Your task to perform on an android device: Clear the cart on costco. Search for razer blade on costco, select the first entry, add it to the cart, then select checkout. Image 0: 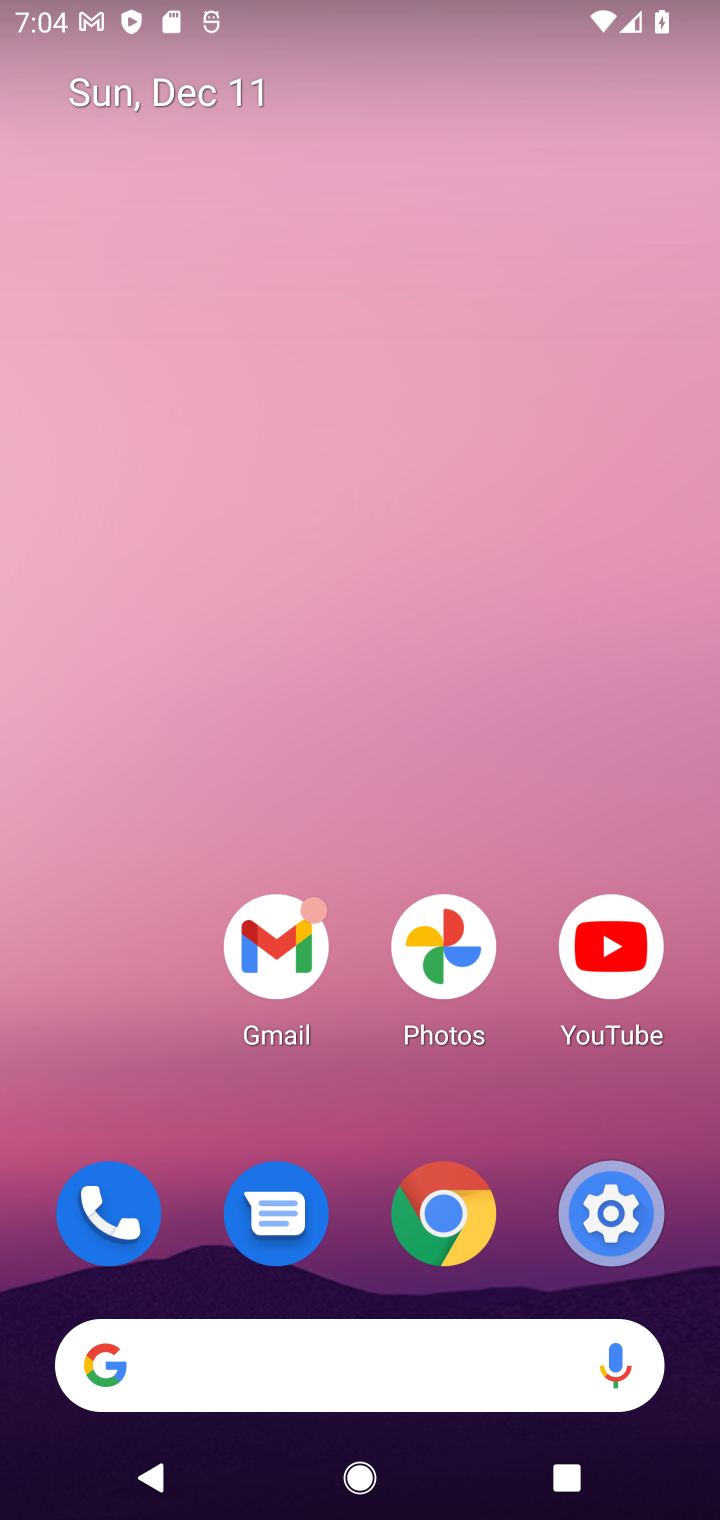
Step 0: click (275, 1355)
Your task to perform on an android device: Clear the cart on costco. Search for razer blade on costco, select the first entry, add it to the cart, then select checkout. Image 1: 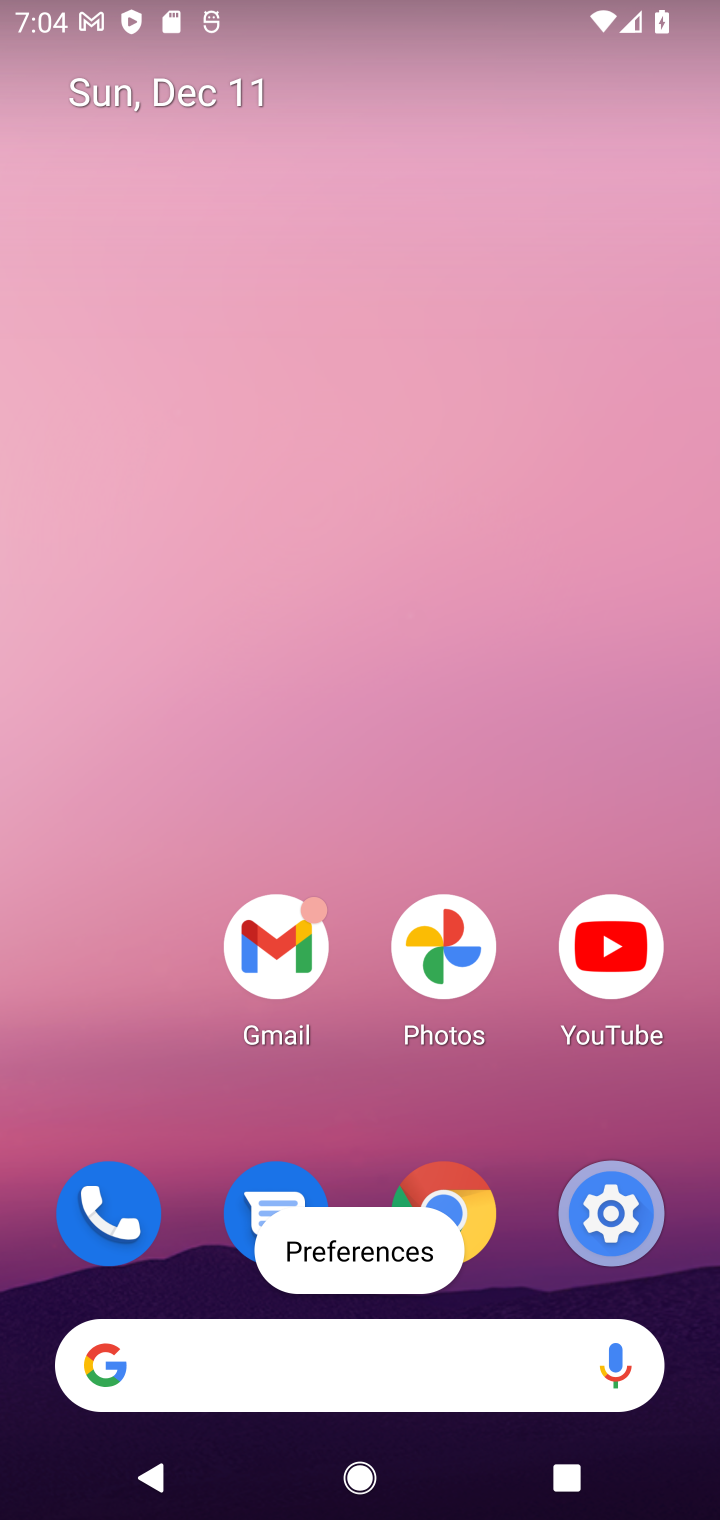
Step 1: click (470, 1378)
Your task to perform on an android device: Clear the cart on costco. Search for razer blade on costco, select the first entry, add it to the cart, then select checkout. Image 2: 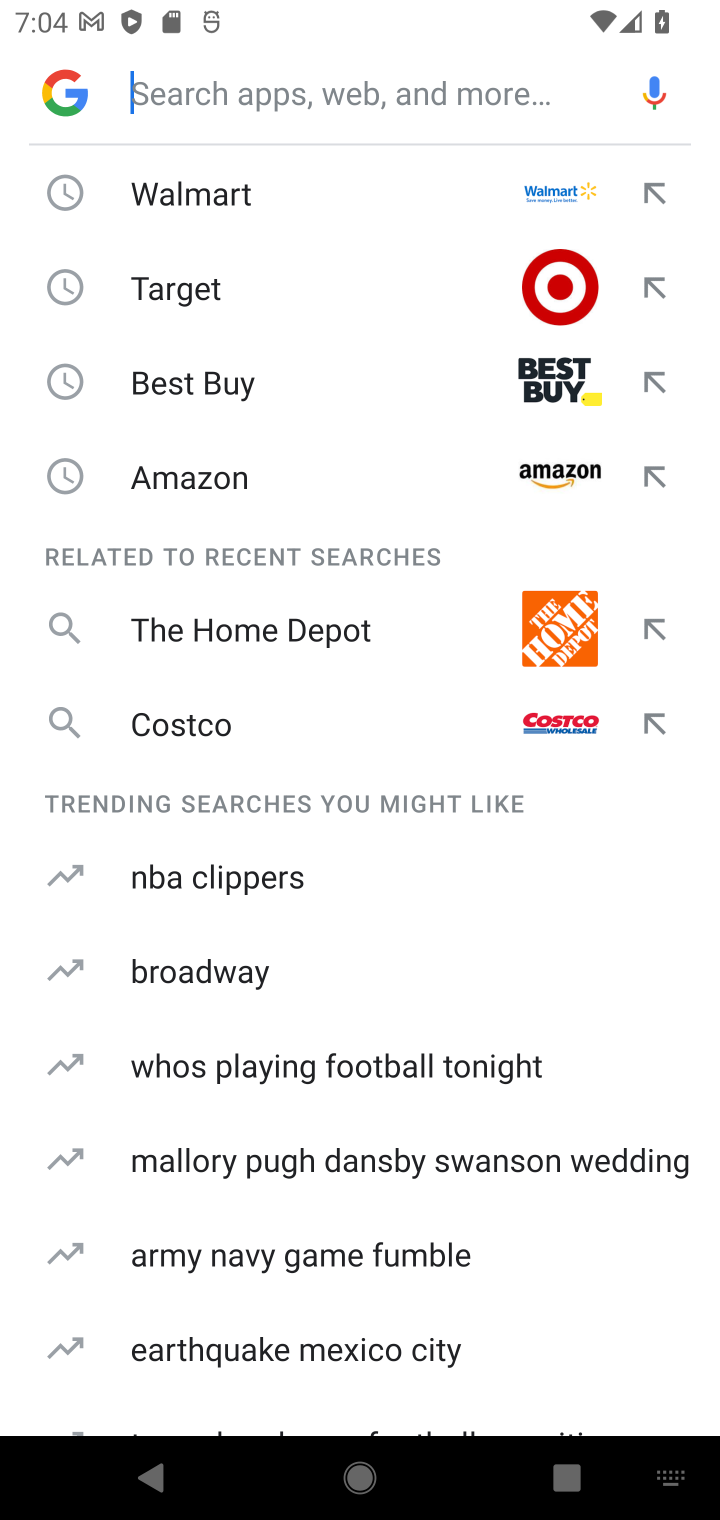
Step 2: click (133, 723)
Your task to perform on an android device: Clear the cart on costco. Search for razer blade on costco, select the first entry, add it to the cart, then select checkout. Image 3: 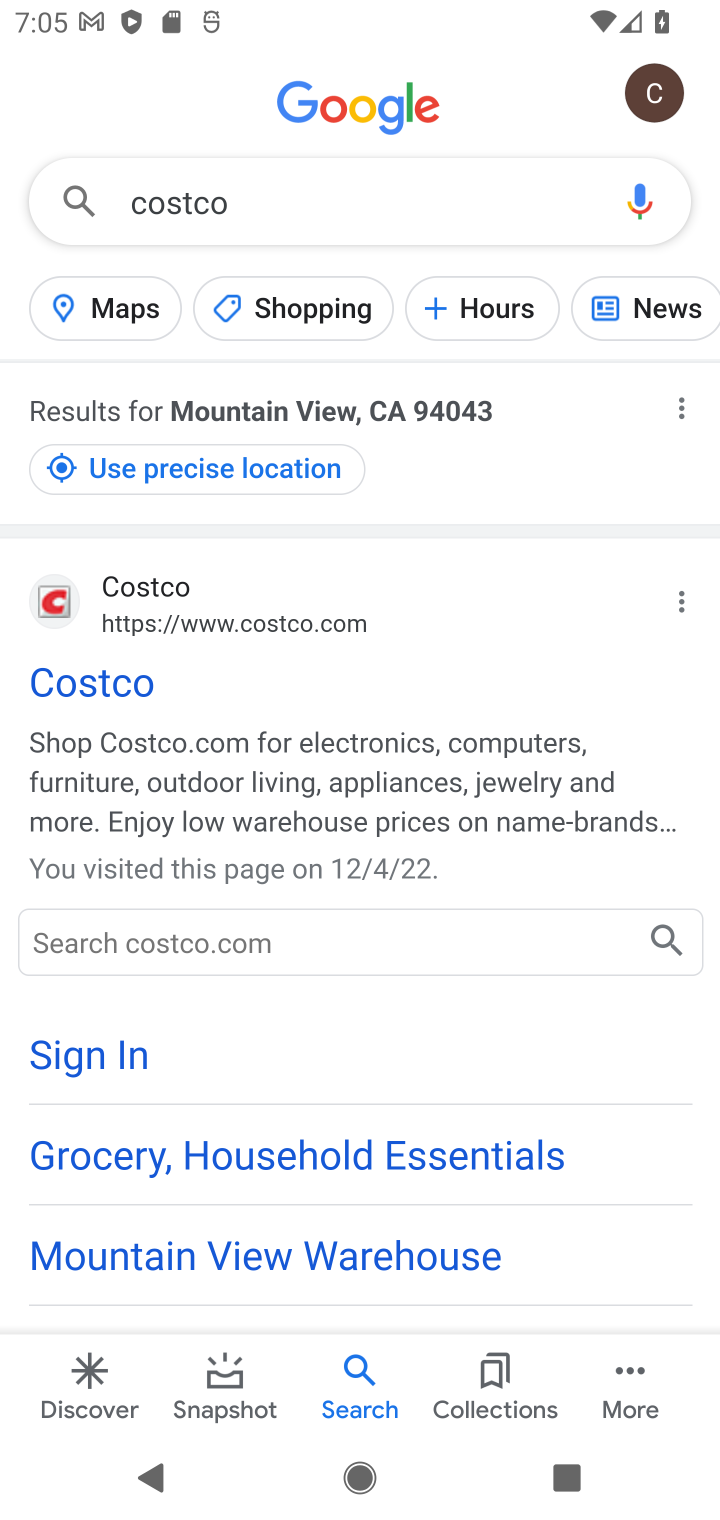
Step 3: click (111, 649)
Your task to perform on an android device: Clear the cart on costco. Search for razer blade on costco, select the first entry, add it to the cart, then select checkout. Image 4: 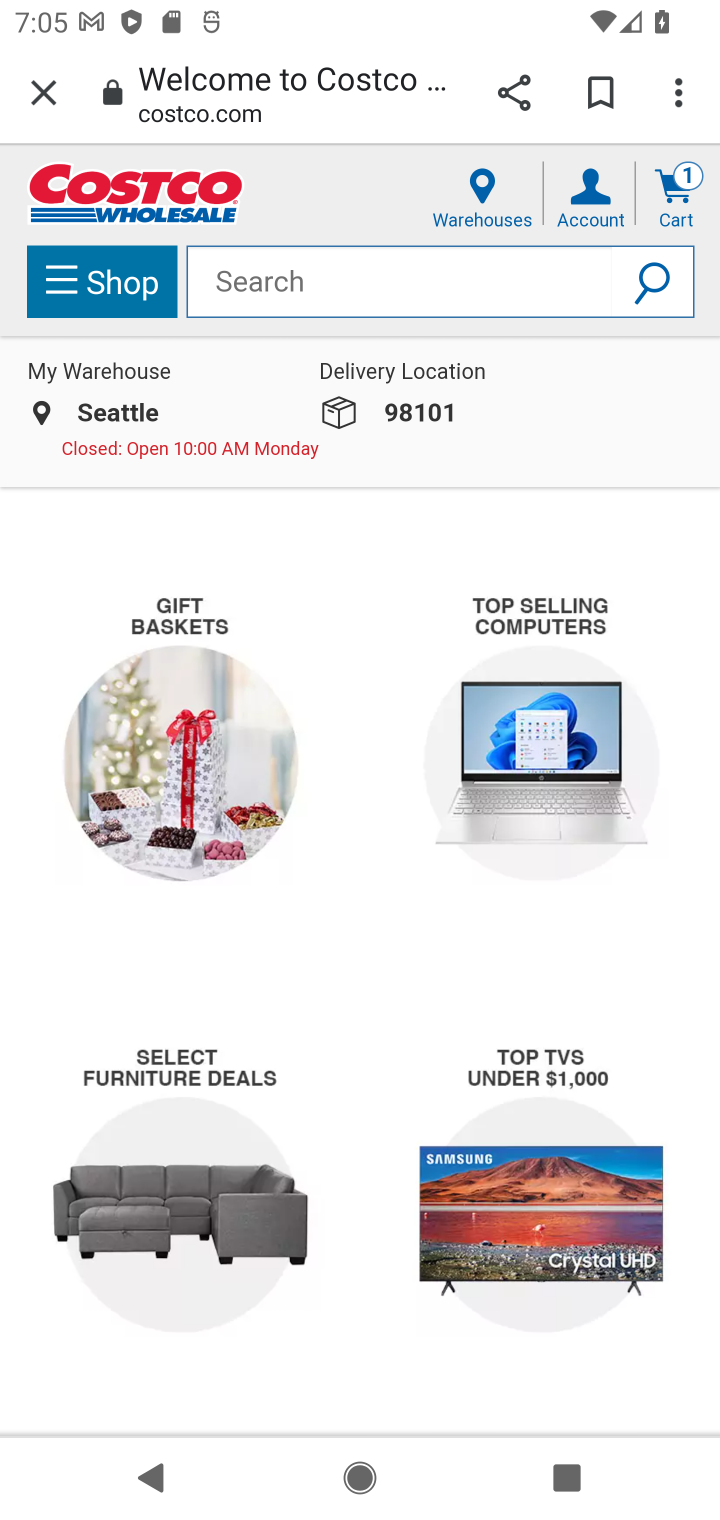
Step 4: click (349, 278)
Your task to perform on an android device: Clear the cart on costco. Search for razer blade on costco, select the first entry, add it to the cart, then select checkout. Image 5: 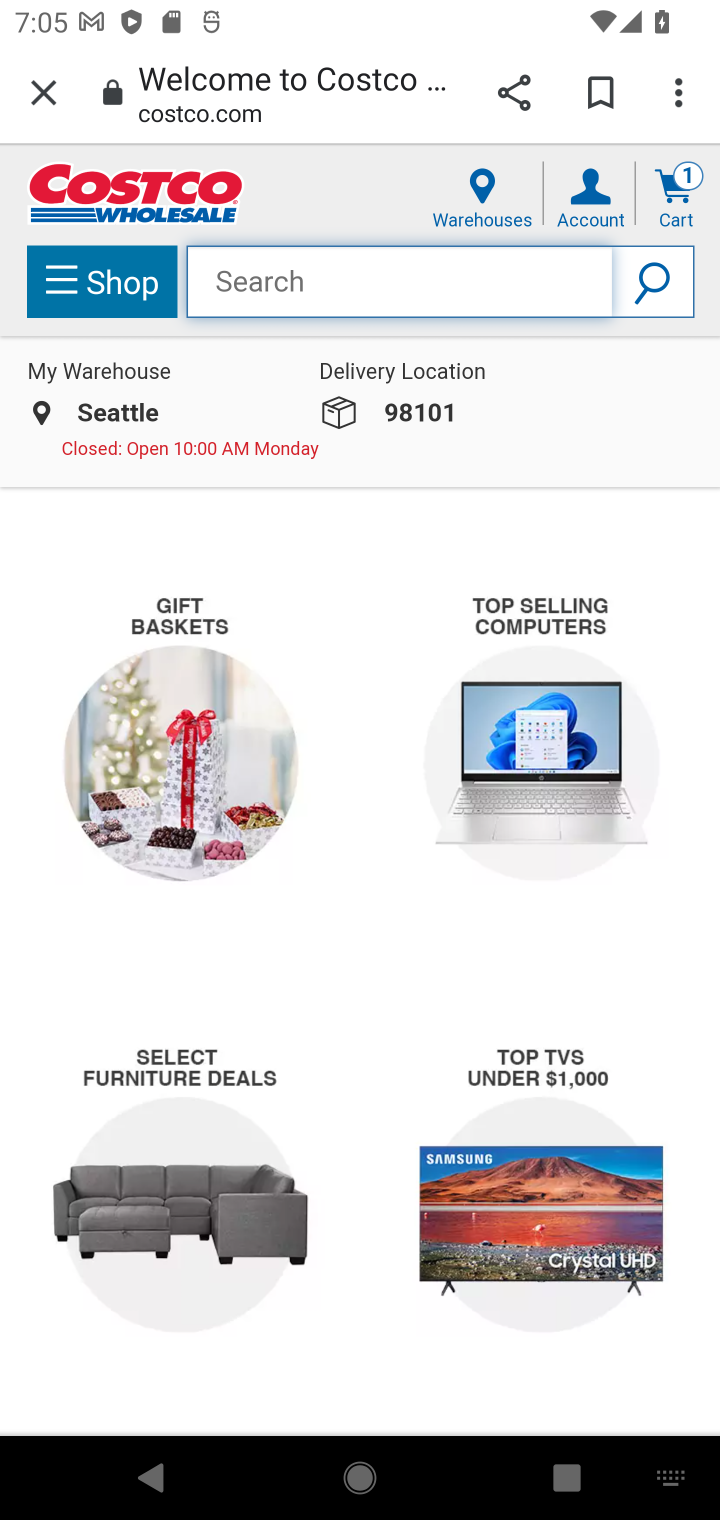
Step 5: type "razer blade"
Your task to perform on an android device: Clear the cart on costco. Search for razer blade on costco, select the first entry, add it to the cart, then select checkout. Image 6: 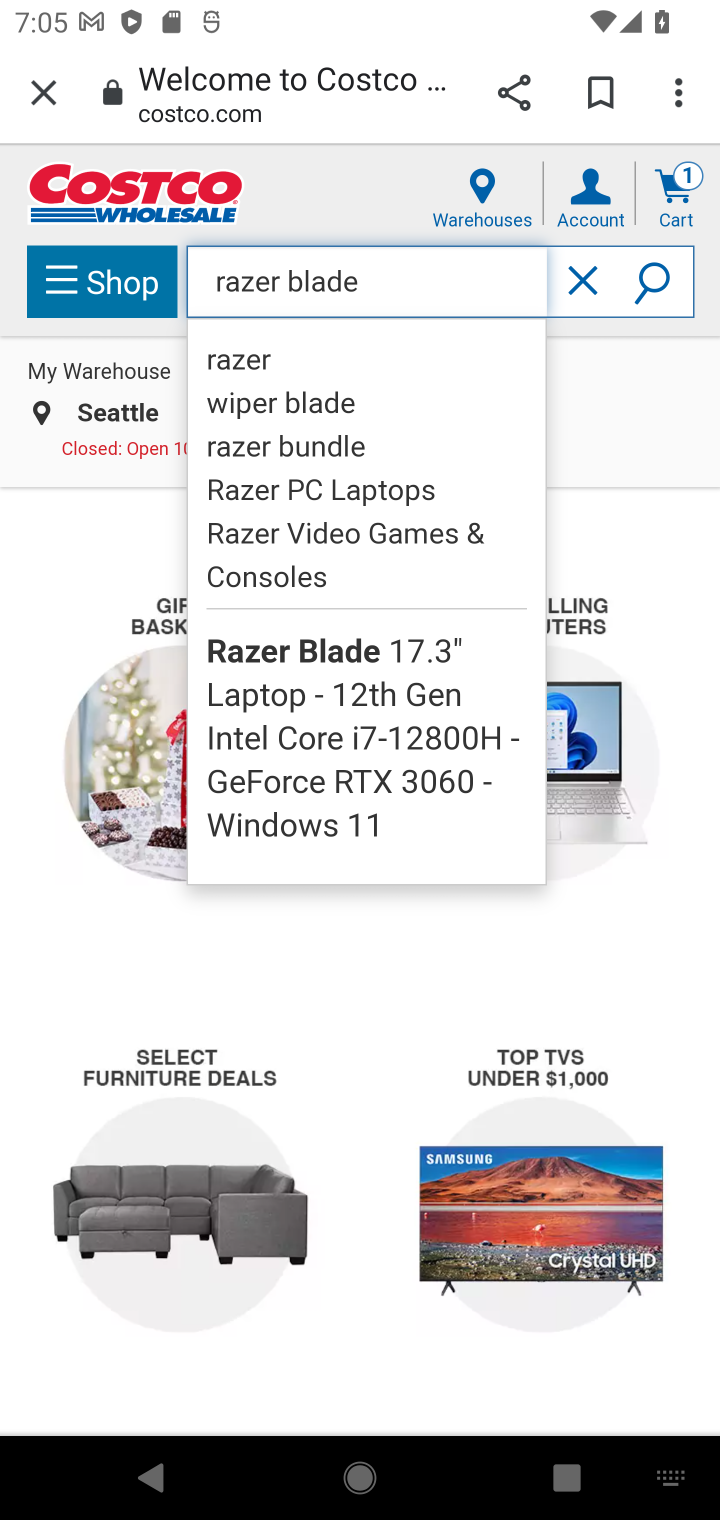
Step 6: click (652, 269)
Your task to perform on an android device: Clear the cart on costco. Search for razer blade on costco, select the first entry, add it to the cart, then select checkout. Image 7: 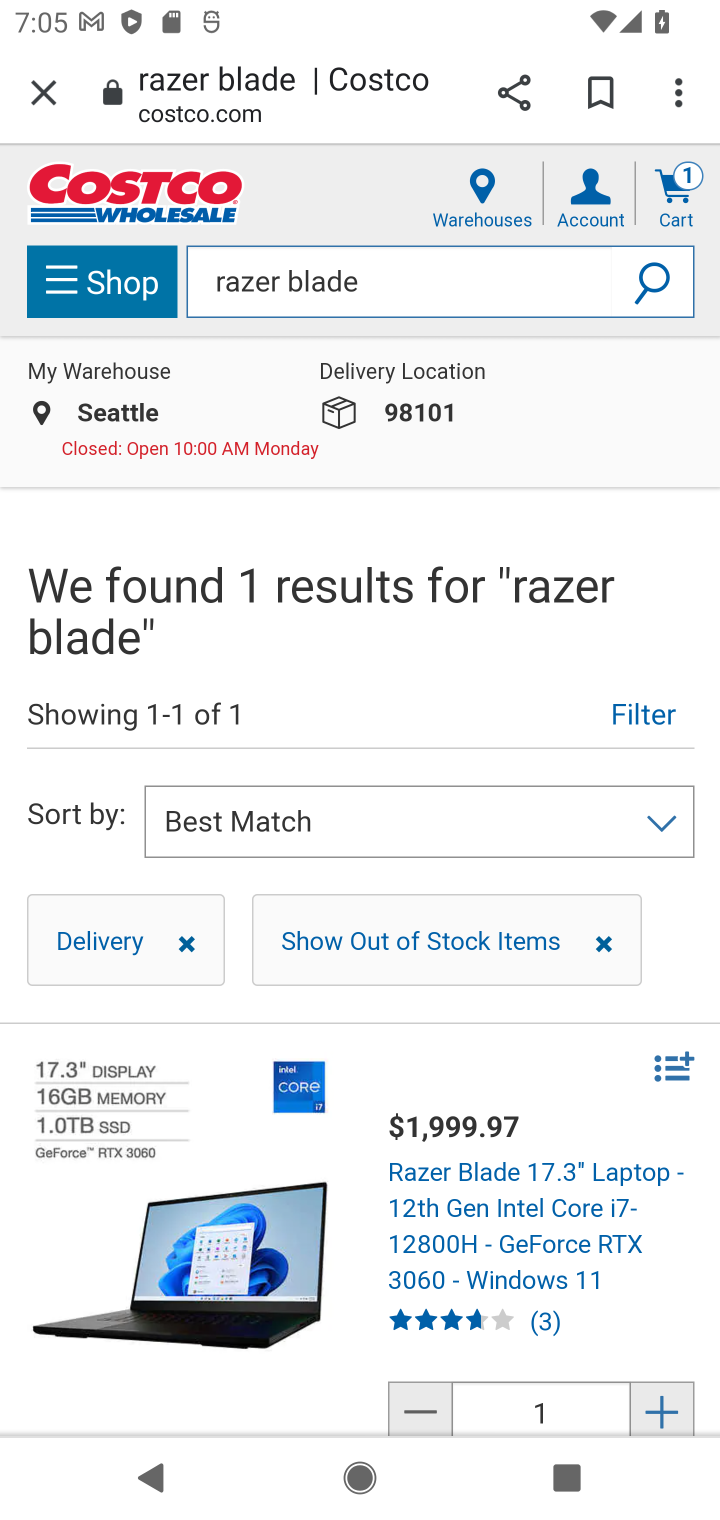
Step 7: drag from (605, 1321) to (582, 1069)
Your task to perform on an android device: Clear the cart on costco. Search for razer blade on costco, select the first entry, add it to the cart, then select checkout. Image 8: 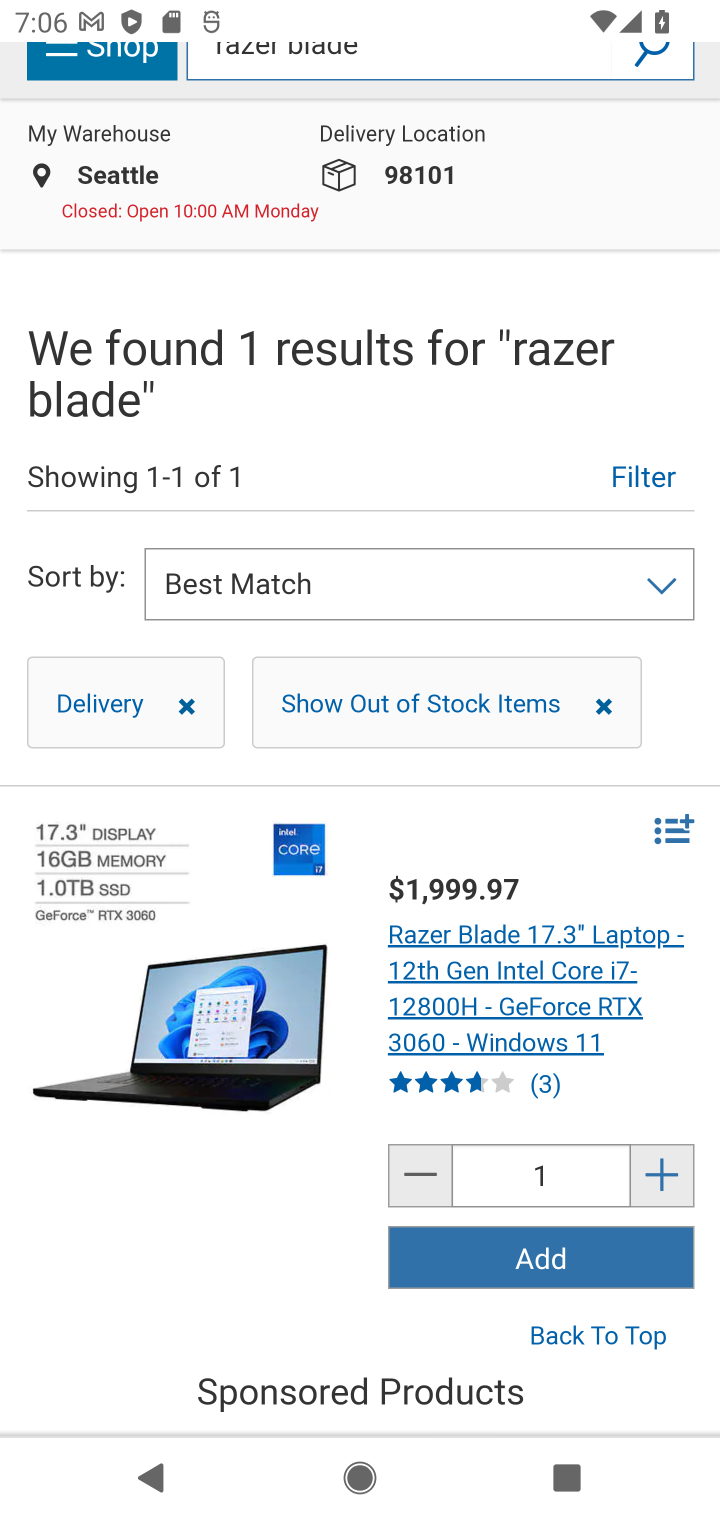
Step 8: click (596, 1232)
Your task to perform on an android device: Clear the cart on costco. Search for razer blade on costco, select the first entry, add it to the cart, then select checkout. Image 9: 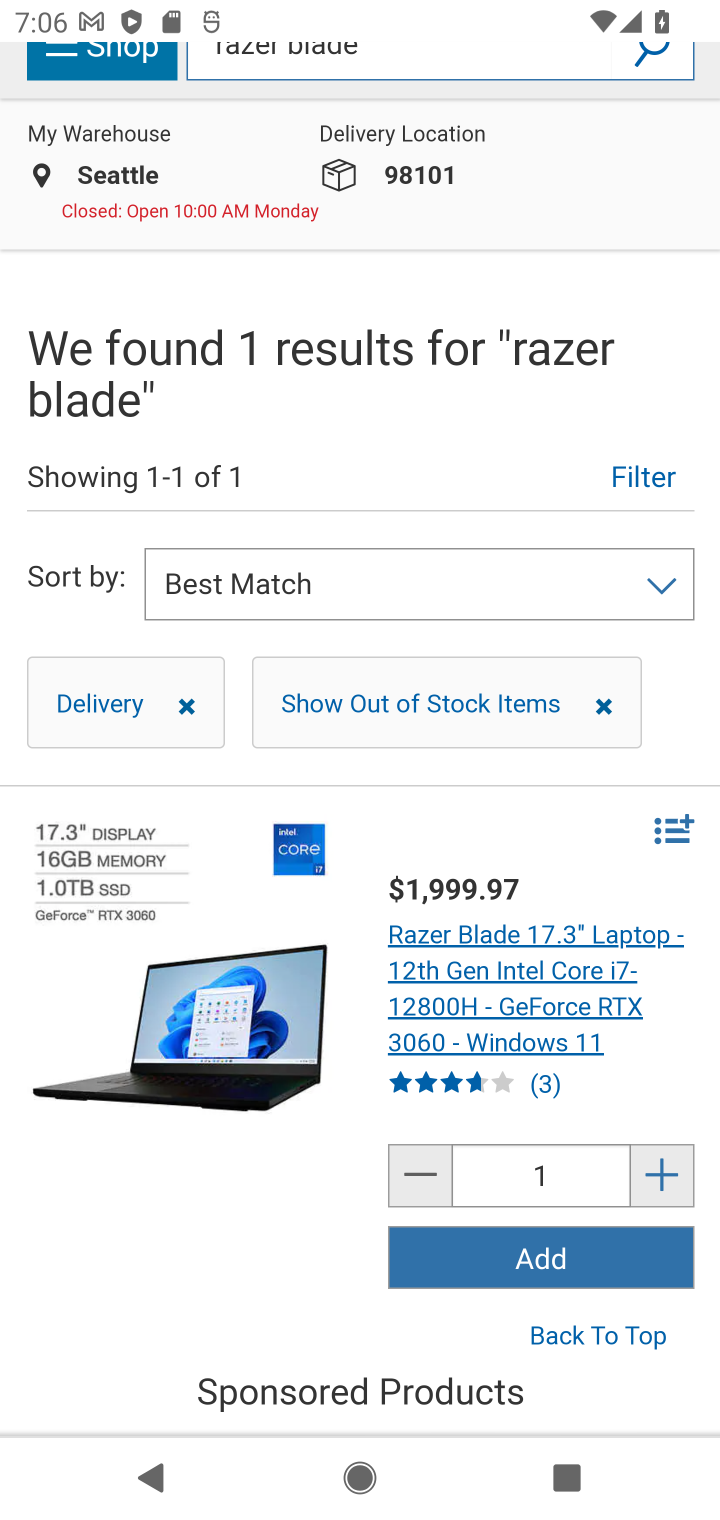
Step 9: click (507, 1286)
Your task to perform on an android device: Clear the cart on costco. Search for razer blade on costco, select the first entry, add it to the cart, then select checkout. Image 10: 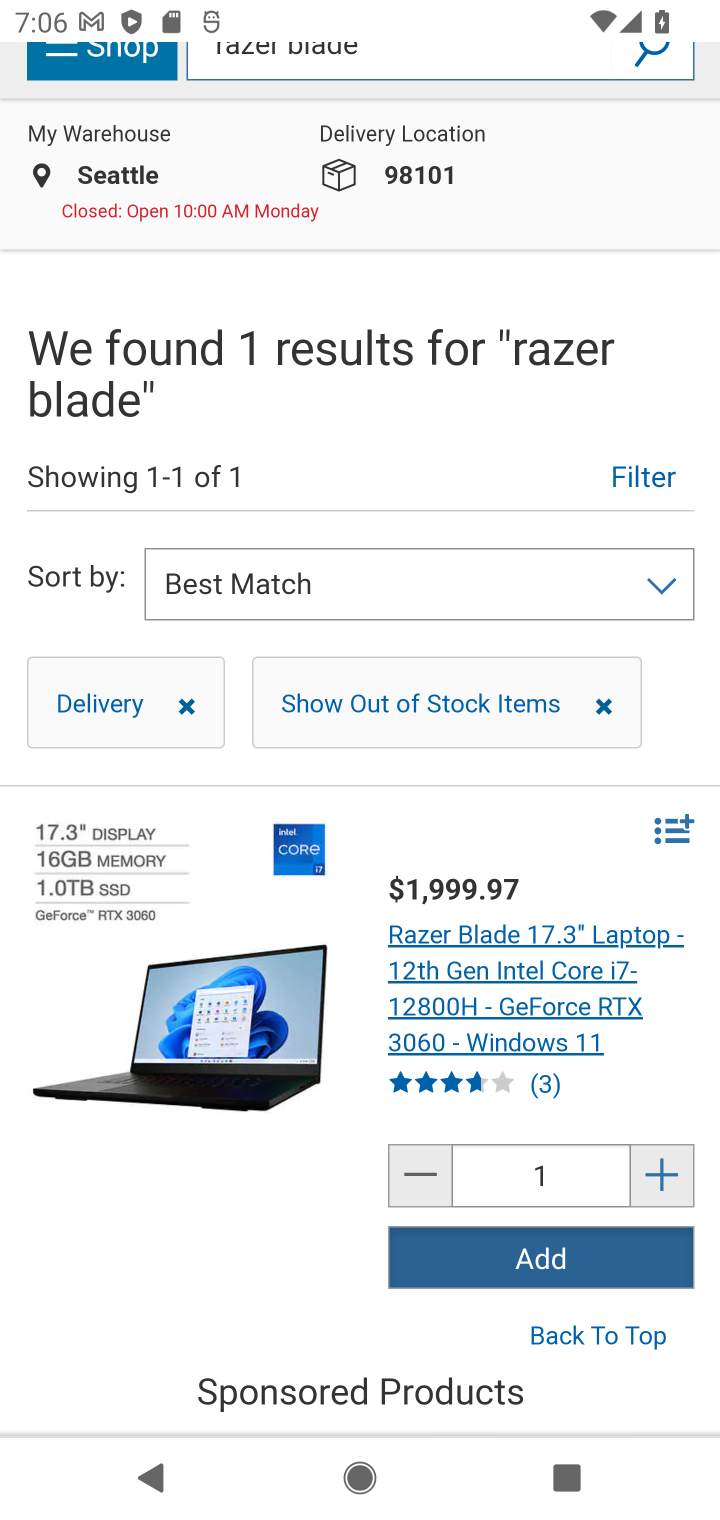
Step 10: click (502, 1265)
Your task to perform on an android device: Clear the cart on costco. Search for razer blade on costco, select the first entry, add it to the cart, then select checkout. Image 11: 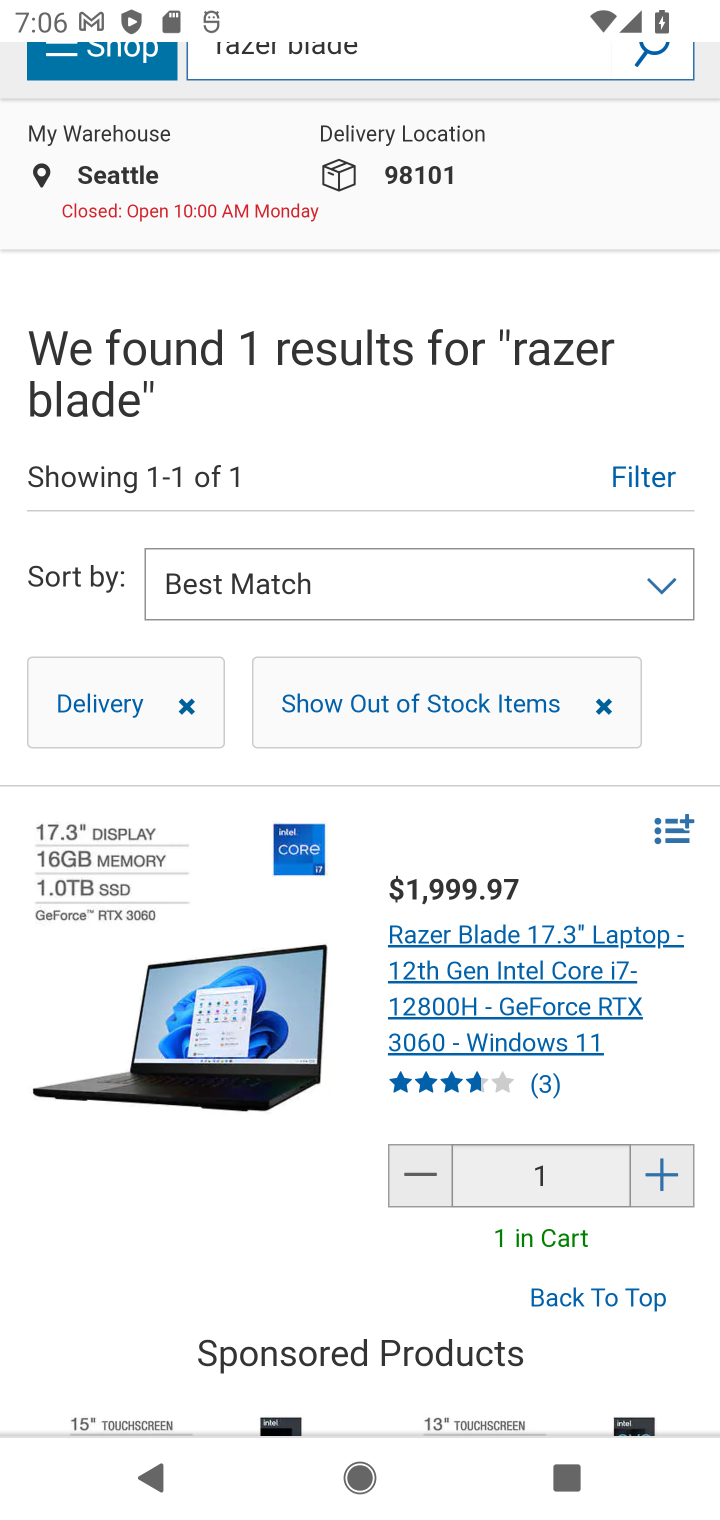
Step 11: task complete